Your task to perform on an android device: open app "Firefox Browser" (install if not already installed) Image 0: 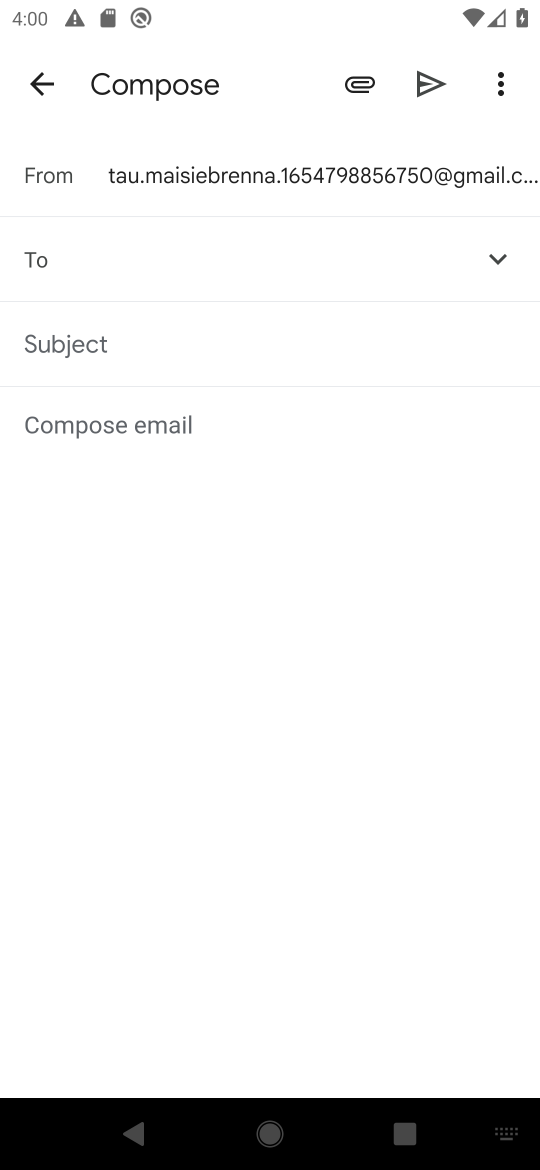
Step 0: press back button
Your task to perform on an android device: open app "Firefox Browser" (install if not already installed) Image 1: 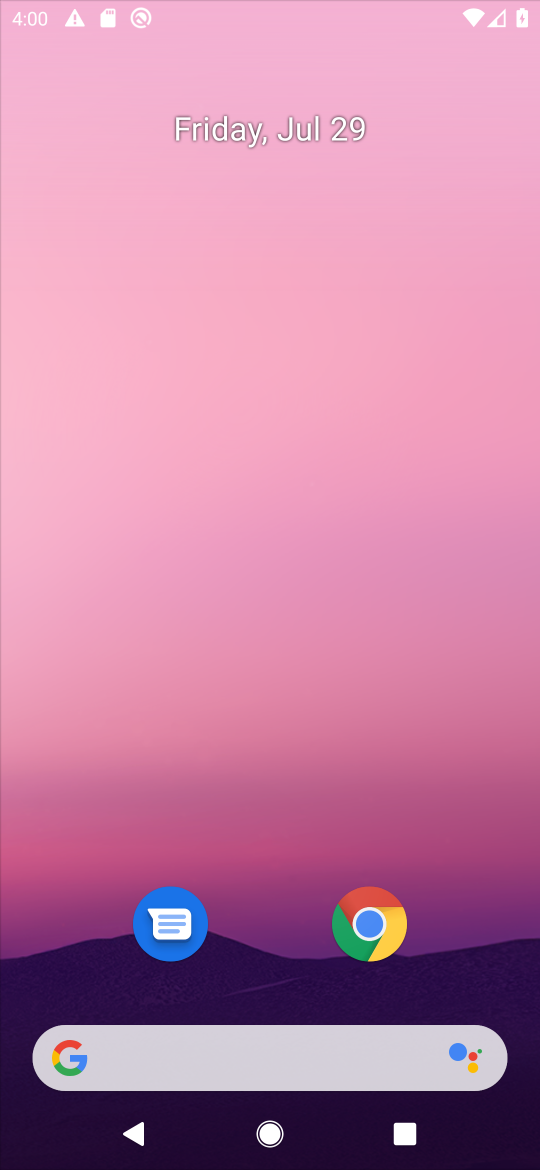
Step 1: press home button
Your task to perform on an android device: open app "Firefox Browser" (install if not already installed) Image 2: 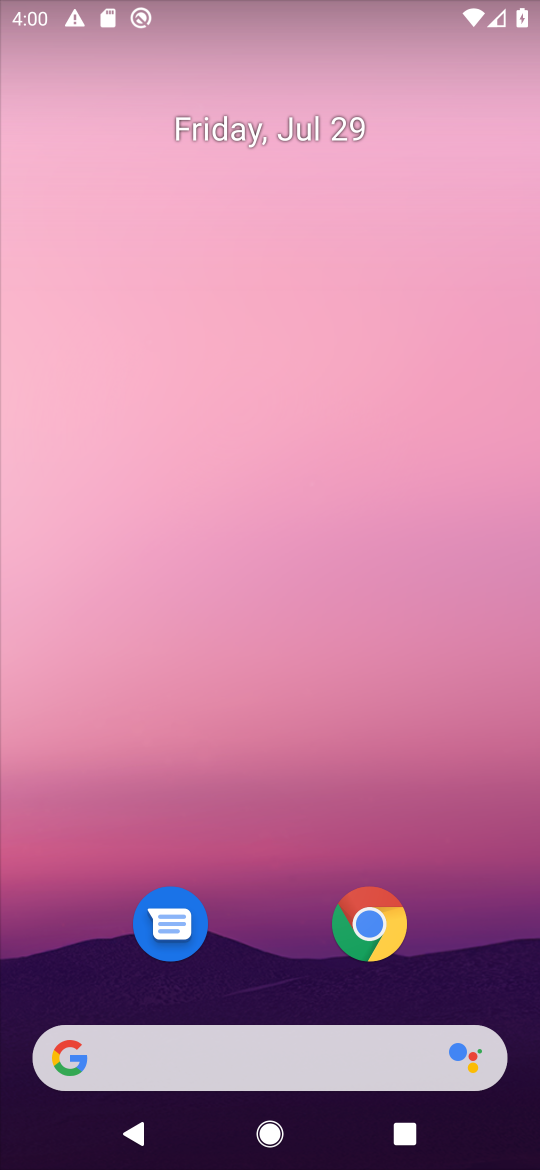
Step 2: click (357, 1127)
Your task to perform on an android device: open app "Firefox Browser" (install if not already installed) Image 3: 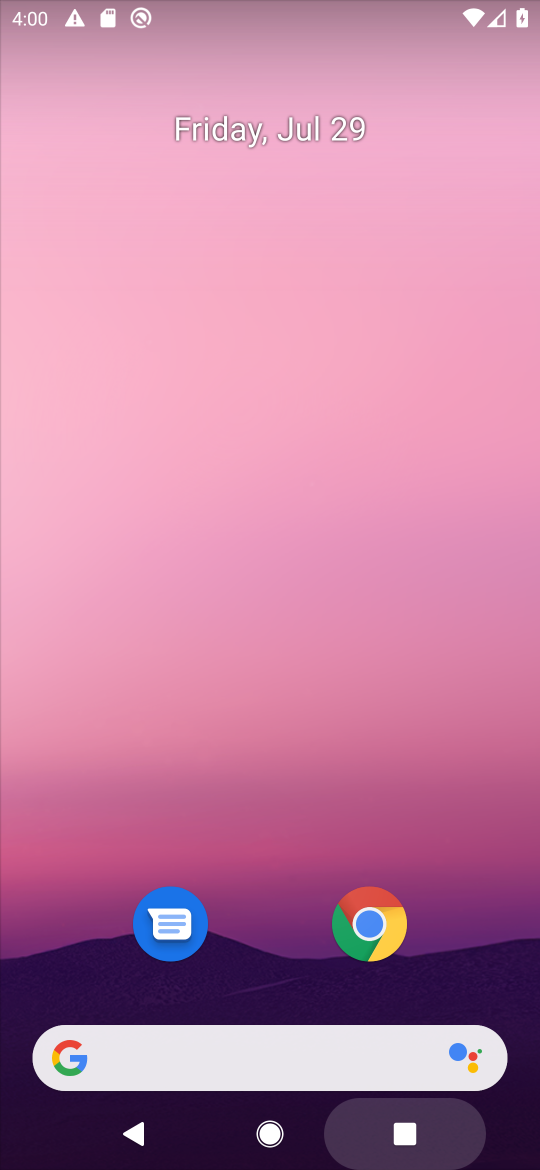
Step 3: drag from (343, 567) to (325, 71)
Your task to perform on an android device: open app "Firefox Browser" (install if not already installed) Image 4: 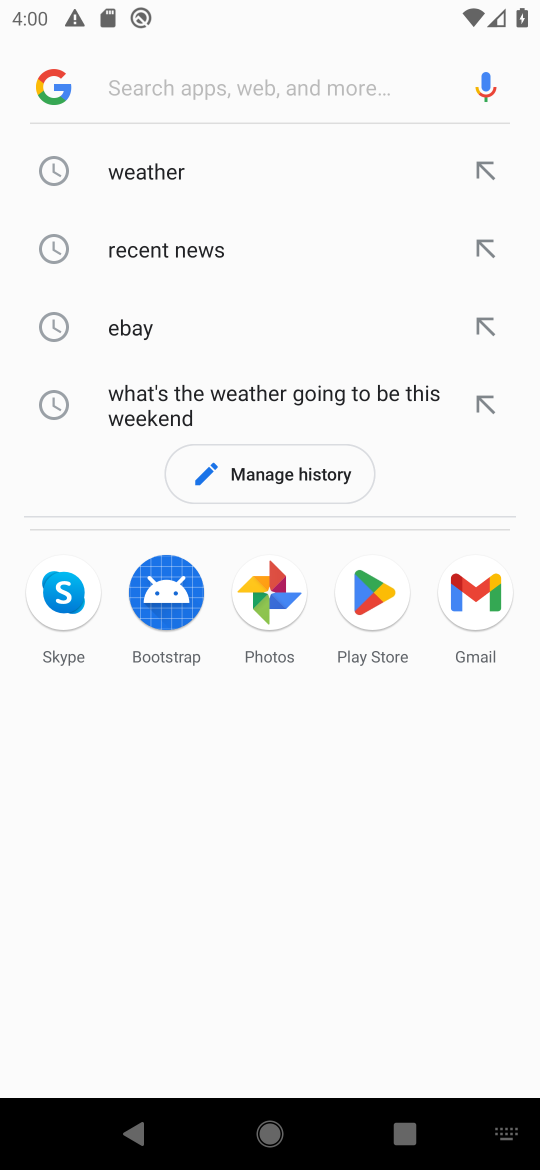
Step 4: press back button
Your task to perform on an android device: open app "Firefox Browser" (install if not already installed) Image 5: 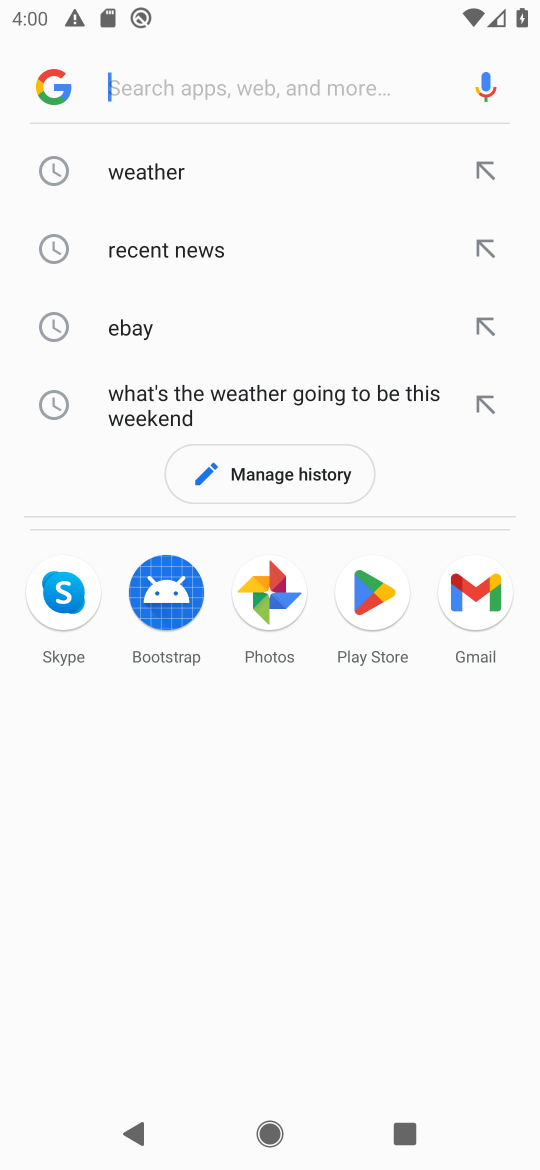
Step 5: press back button
Your task to perform on an android device: open app "Firefox Browser" (install if not already installed) Image 6: 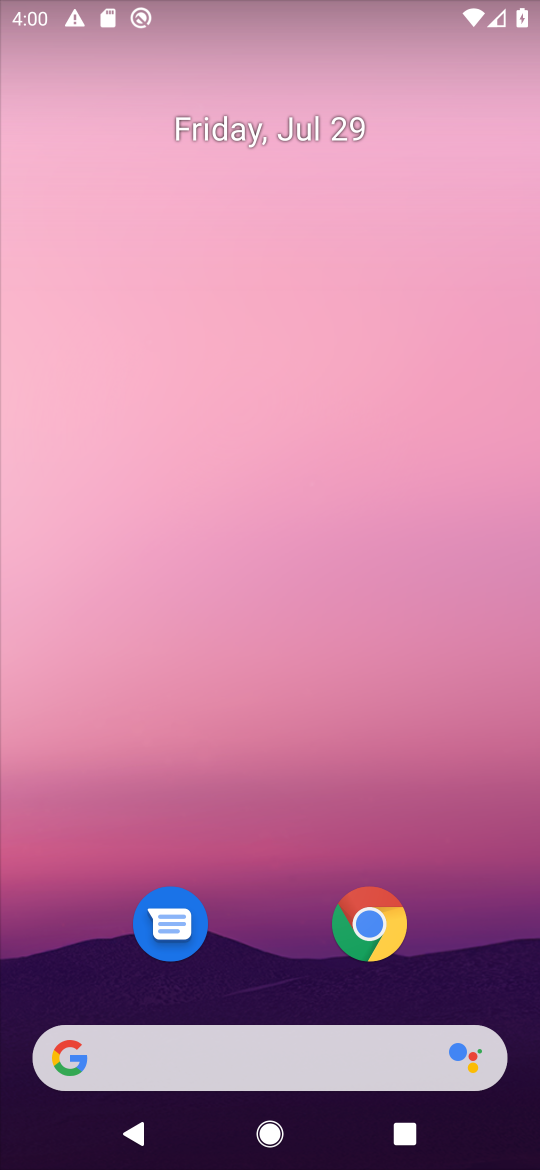
Step 6: drag from (262, 809) to (204, 193)
Your task to perform on an android device: open app "Firefox Browser" (install if not already installed) Image 7: 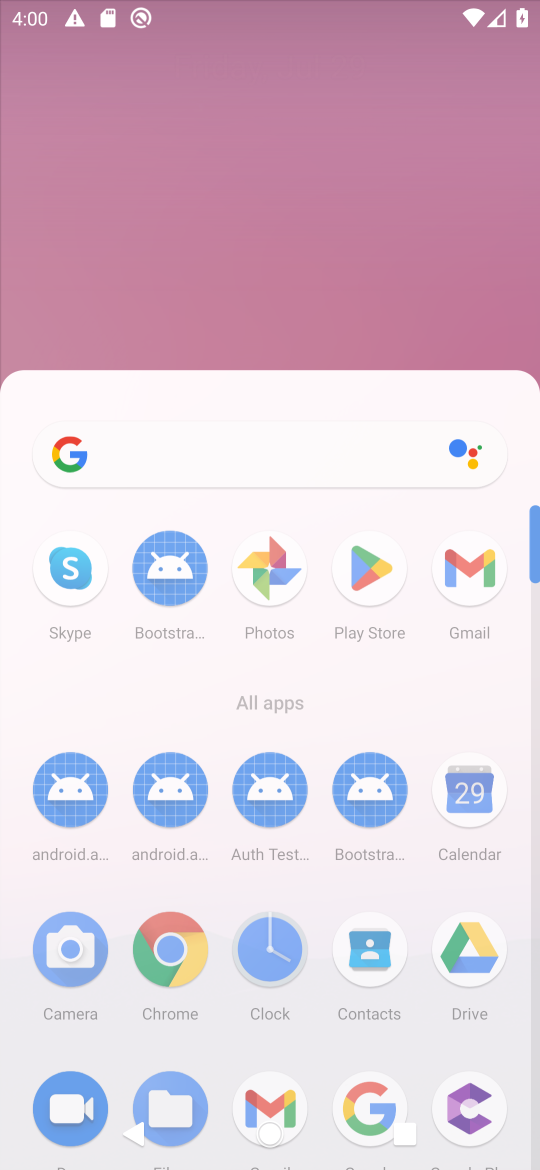
Step 7: drag from (279, 840) to (250, 82)
Your task to perform on an android device: open app "Firefox Browser" (install if not already installed) Image 8: 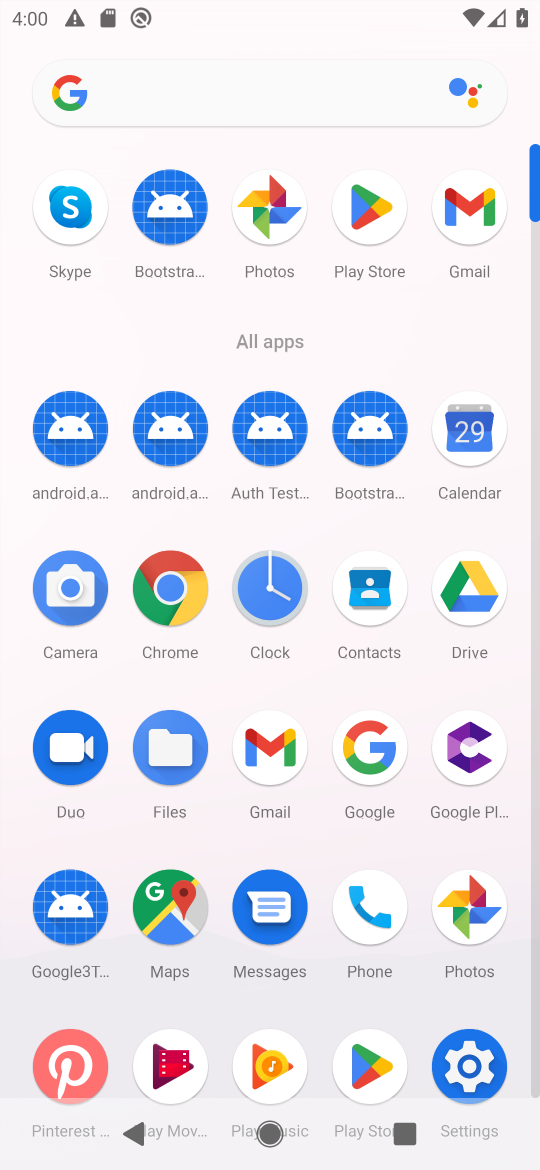
Step 8: drag from (319, 526) to (288, 179)
Your task to perform on an android device: open app "Firefox Browser" (install if not already installed) Image 9: 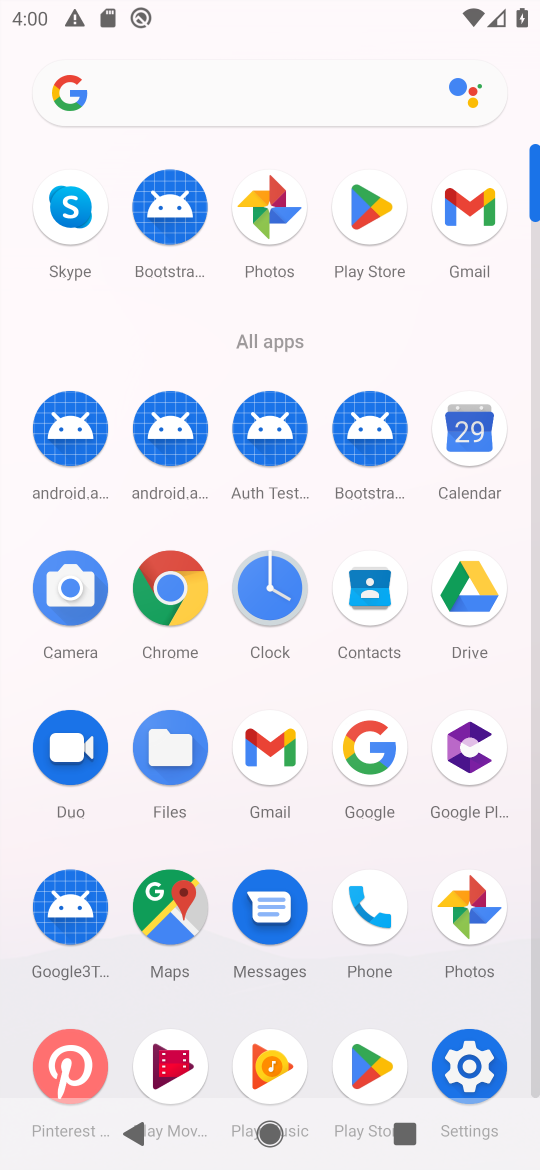
Step 9: click (365, 210)
Your task to perform on an android device: open app "Firefox Browser" (install if not already installed) Image 10: 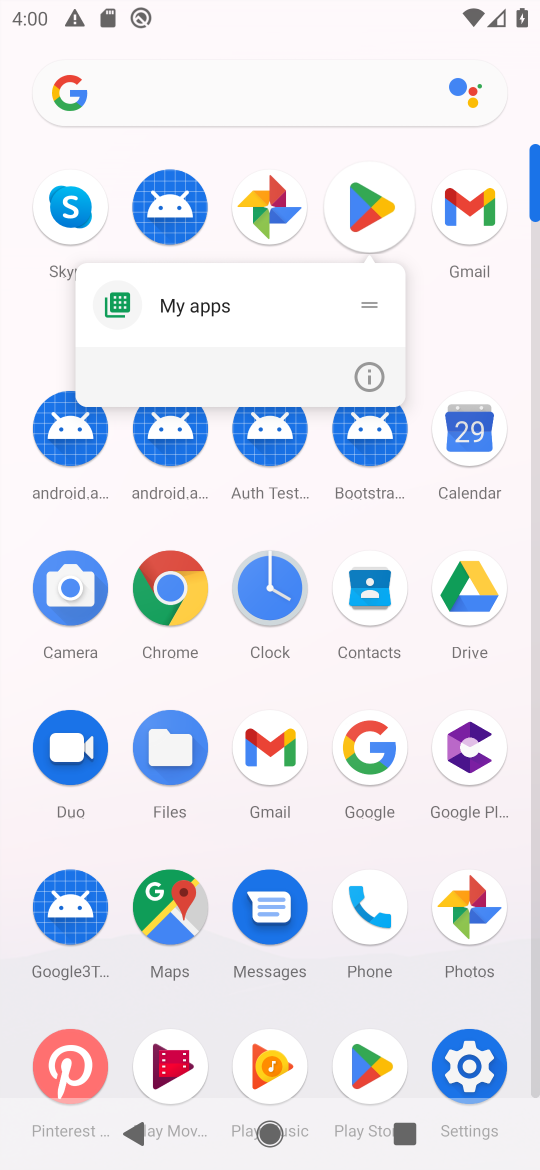
Step 10: click (356, 204)
Your task to perform on an android device: open app "Firefox Browser" (install if not already installed) Image 11: 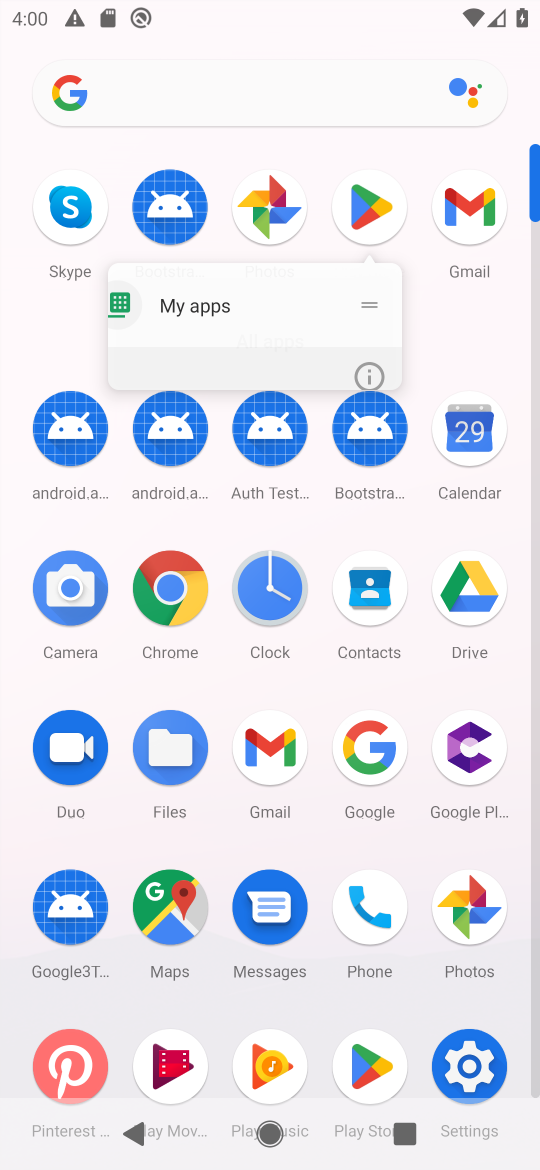
Step 11: click (357, 207)
Your task to perform on an android device: open app "Firefox Browser" (install if not already installed) Image 12: 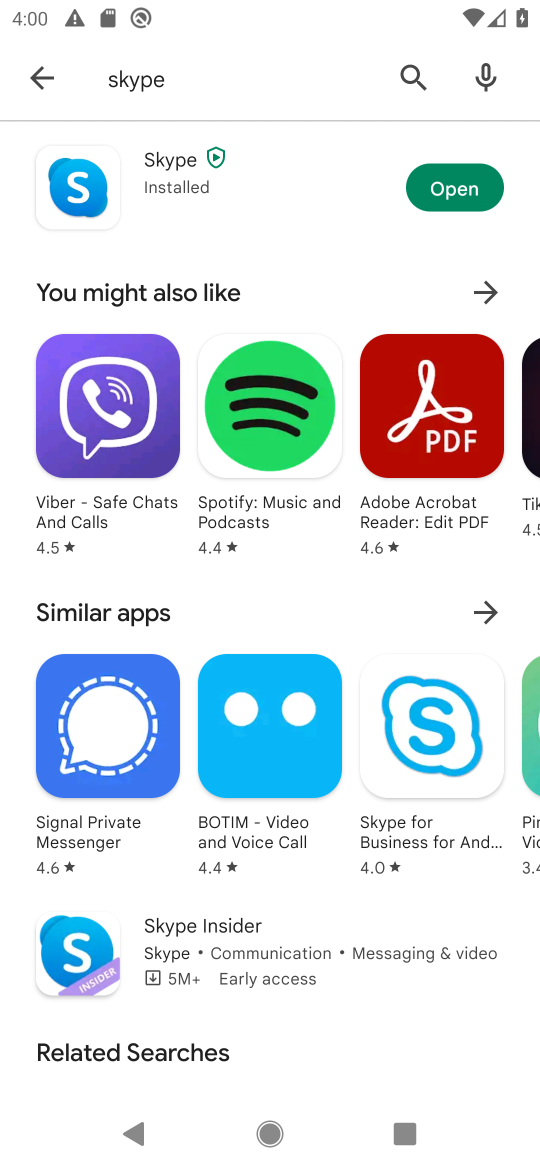
Step 12: click (120, 81)
Your task to perform on an android device: open app "Firefox Browser" (install if not already installed) Image 13: 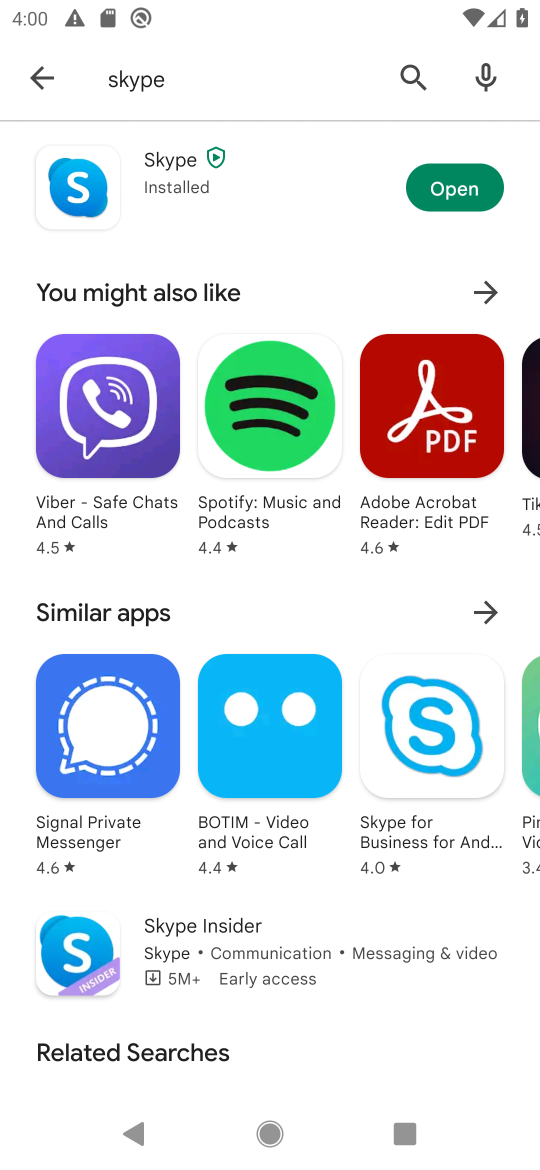
Step 13: click (118, 80)
Your task to perform on an android device: open app "Firefox Browser" (install if not already installed) Image 14: 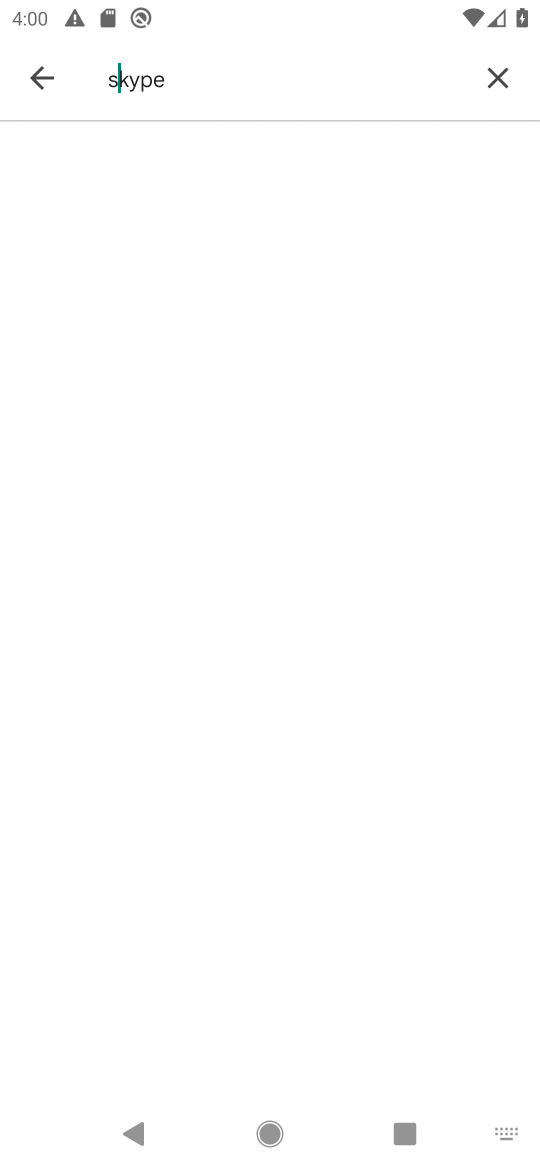
Step 14: click (38, 78)
Your task to perform on an android device: open app "Firefox Browser" (install if not already installed) Image 15: 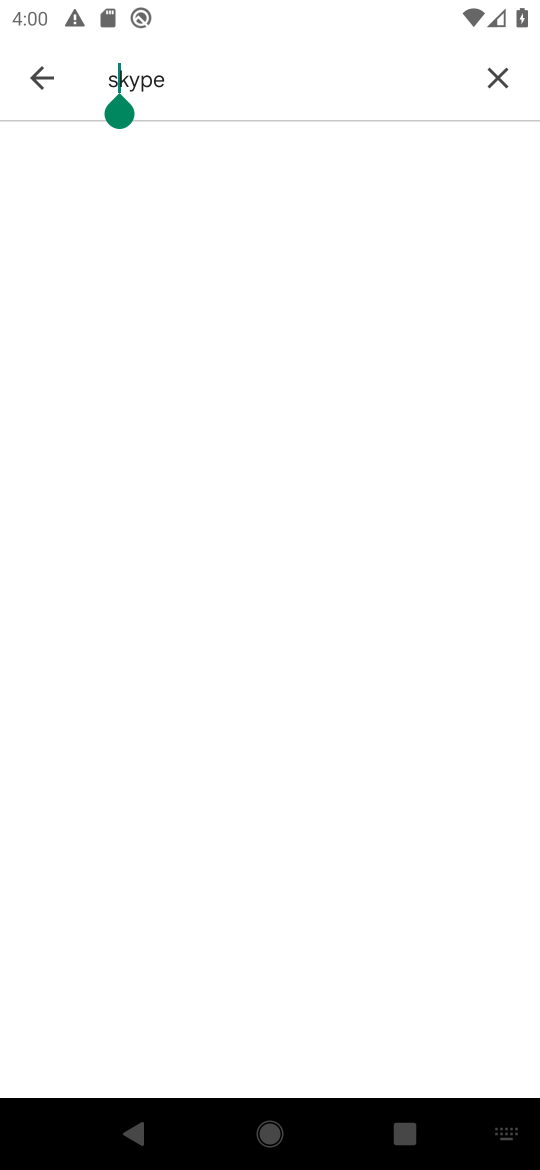
Step 15: click (40, 78)
Your task to perform on an android device: open app "Firefox Browser" (install if not already installed) Image 16: 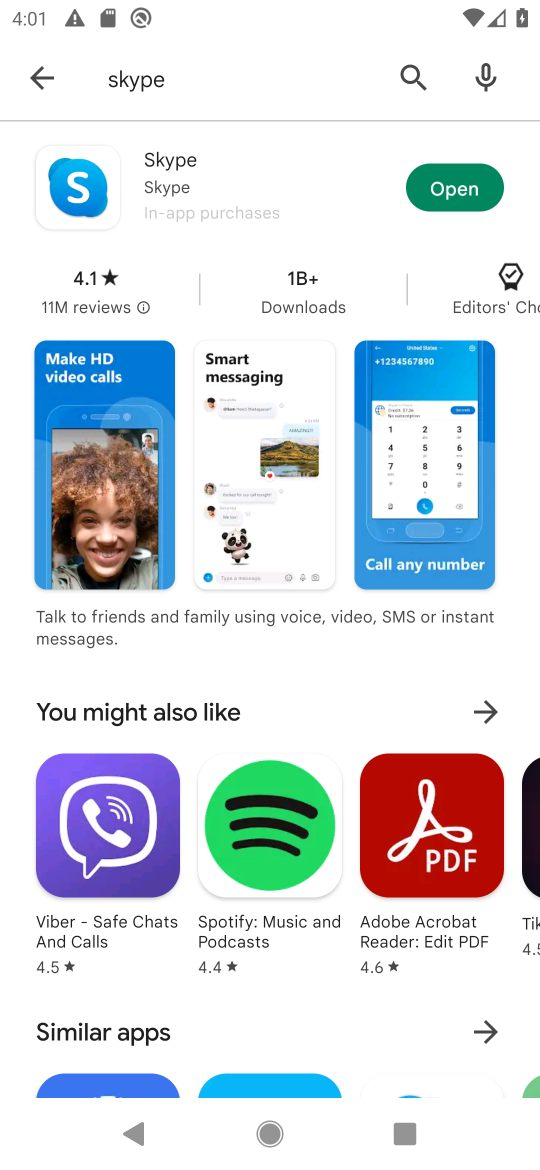
Step 16: click (487, 70)
Your task to perform on an android device: open app "Firefox Browser" (install if not already installed) Image 17: 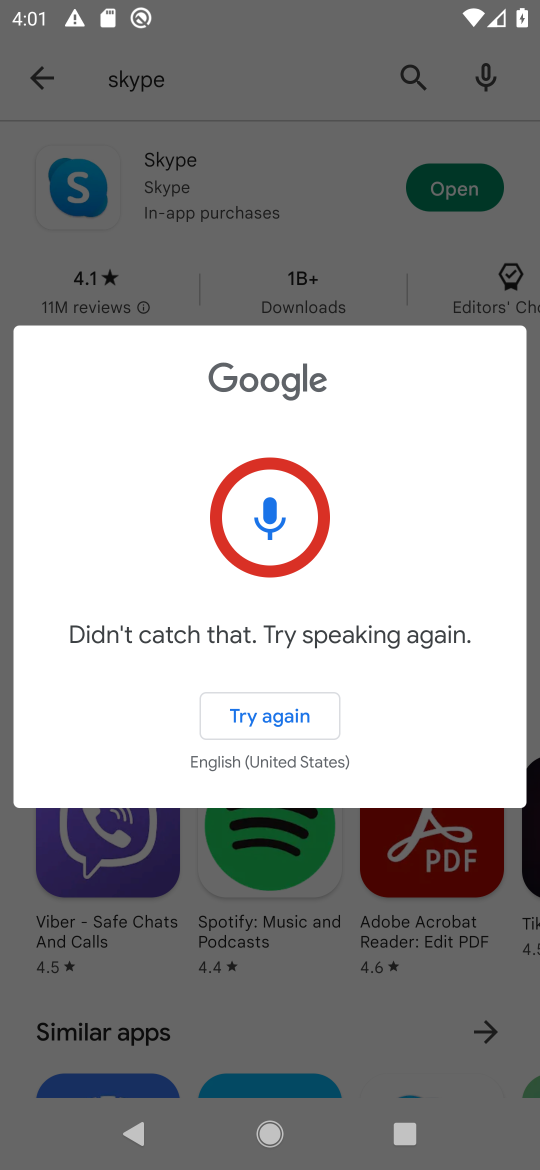
Step 17: click (292, 227)
Your task to perform on an android device: open app "Firefox Browser" (install if not already installed) Image 18: 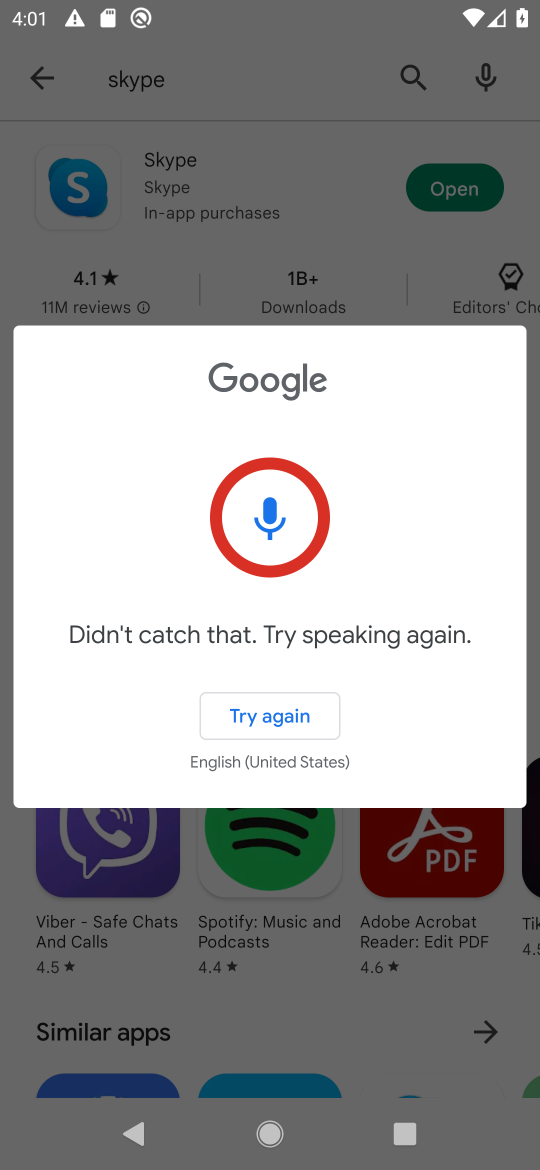
Step 18: click (292, 223)
Your task to perform on an android device: open app "Firefox Browser" (install if not already installed) Image 19: 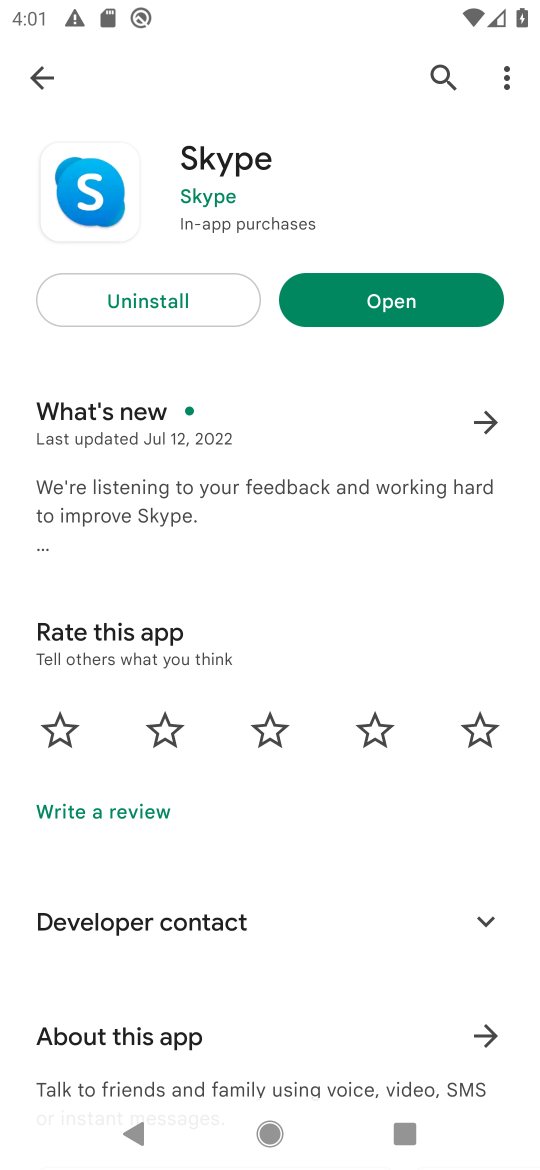
Step 19: click (62, 75)
Your task to perform on an android device: open app "Firefox Browser" (install if not already installed) Image 20: 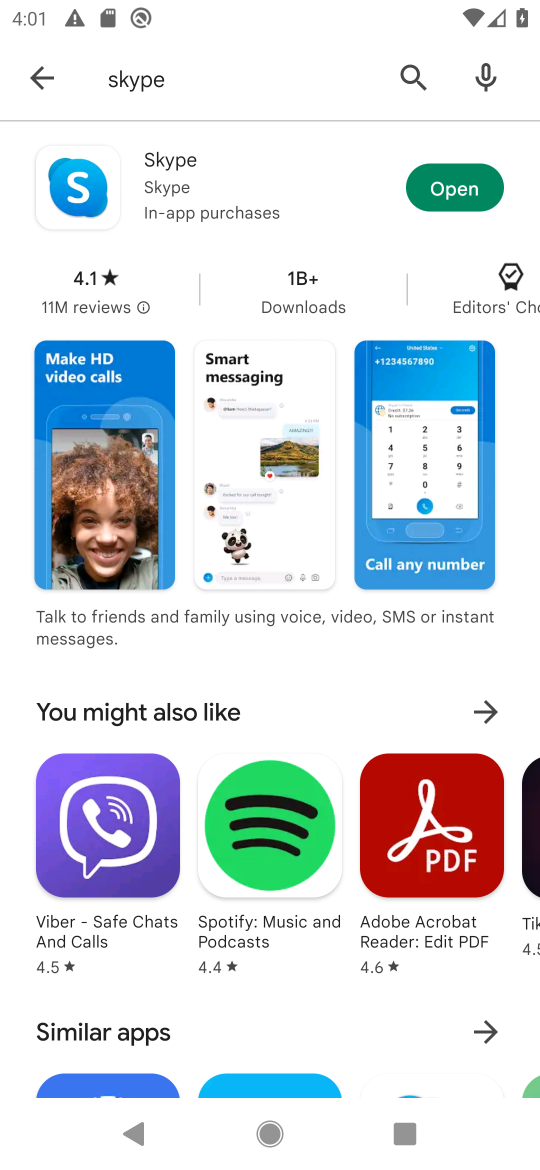
Step 20: click (42, 72)
Your task to perform on an android device: open app "Firefox Browser" (install if not already installed) Image 21: 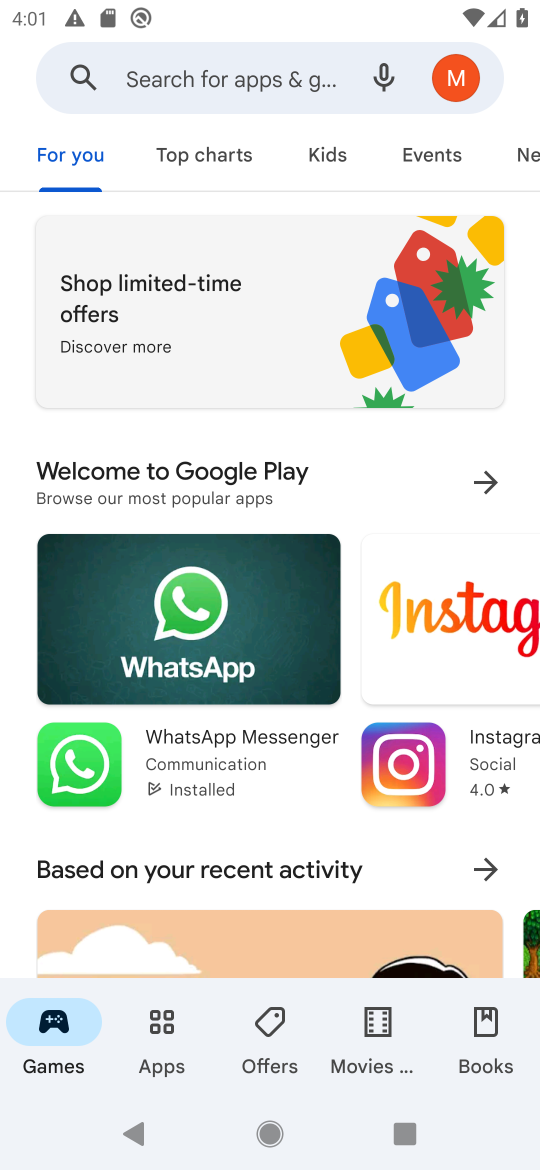
Step 21: click (132, 54)
Your task to perform on an android device: open app "Firefox Browser" (install if not already installed) Image 22: 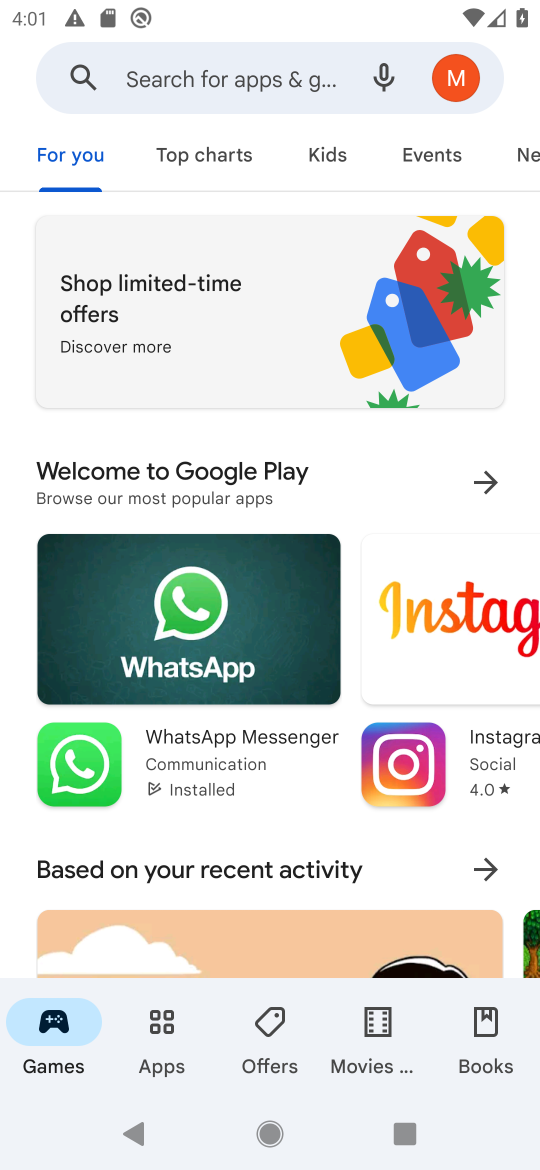
Step 22: click (151, 65)
Your task to perform on an android device: open app "Firefox Browser" (install if not already installed) Image 23: 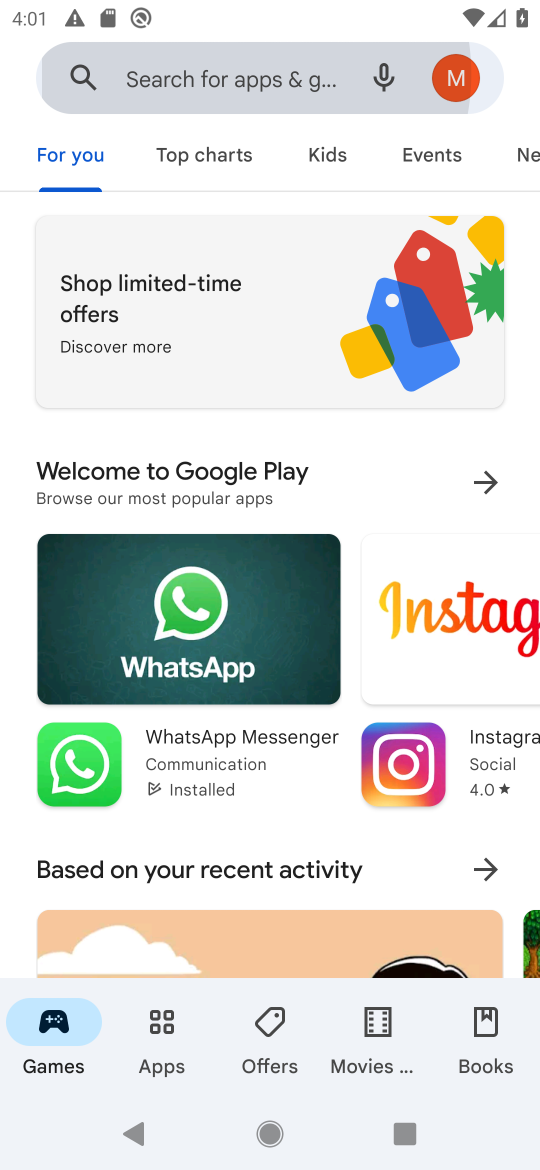
Step 23: click (155, 68)
Your task to perform on an android device: open app "Firefox Browser" (install if not already installed) Image 24: 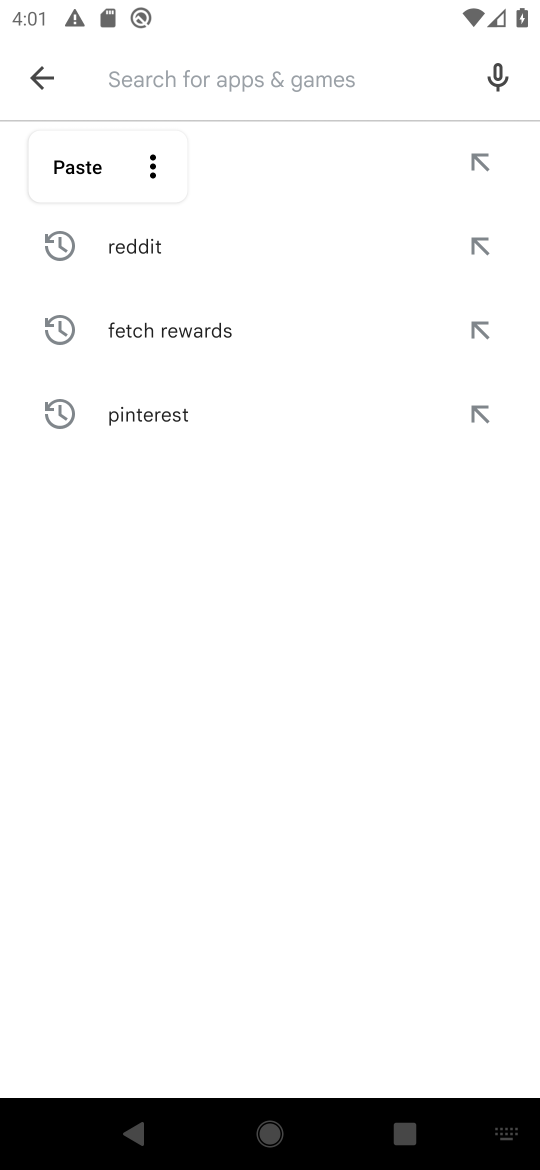
Step 24: type "firefox browser"
Your task to perform on an android device: open app "Firefox Browser" (install if not already installed) Image 25: 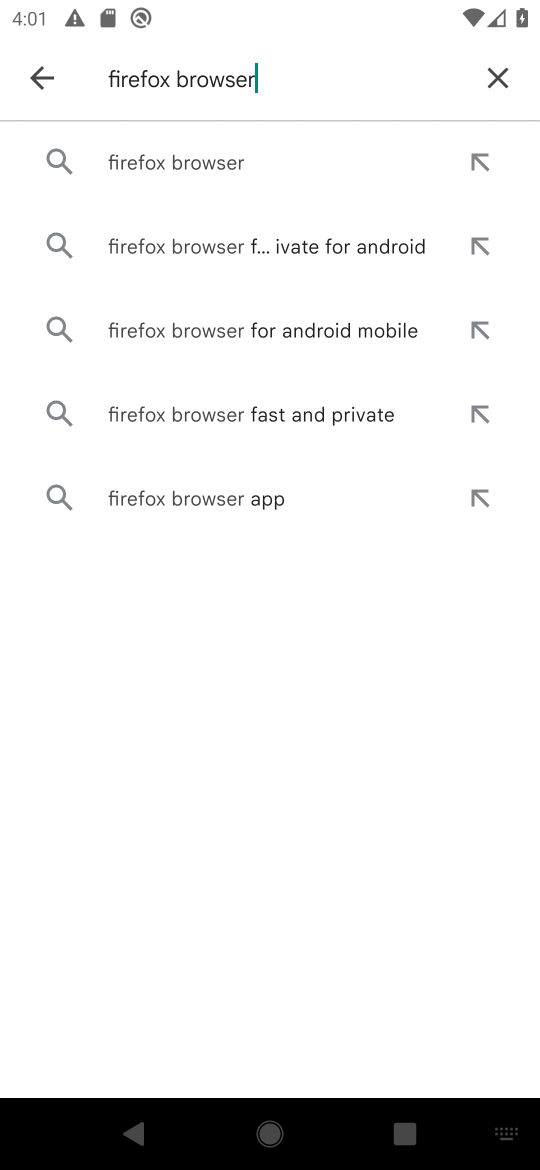
Step 25: click (180, 159)
Your task to perform on an android device: open app "Firefox Browser" (install if not already installed) Image 26: 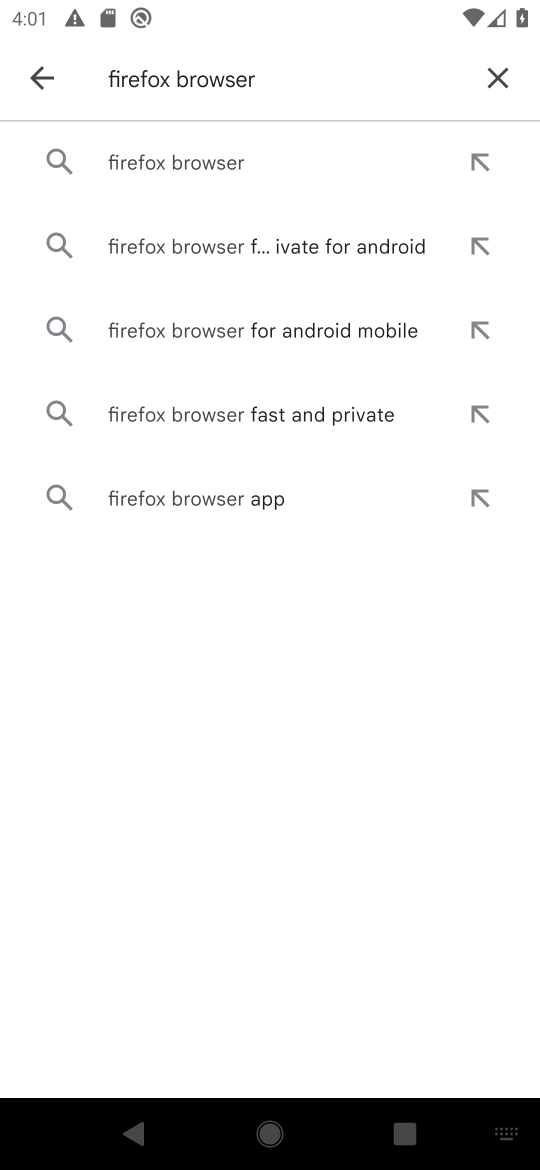
Step 26: click (180, 159)
Your task to perform on an android device: open app "Firefox Browser" (install if not already installed) Image 27: 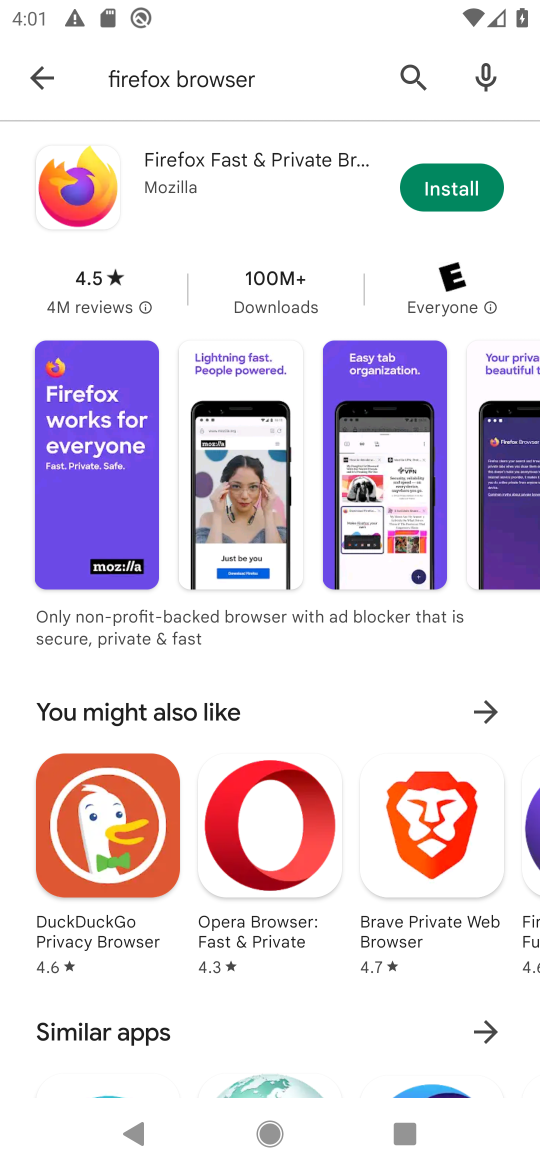
Step 27: click (437, 184)
Your task to perform on an android device: open app "Firefox Browser" (install if not already installed) Image 28: 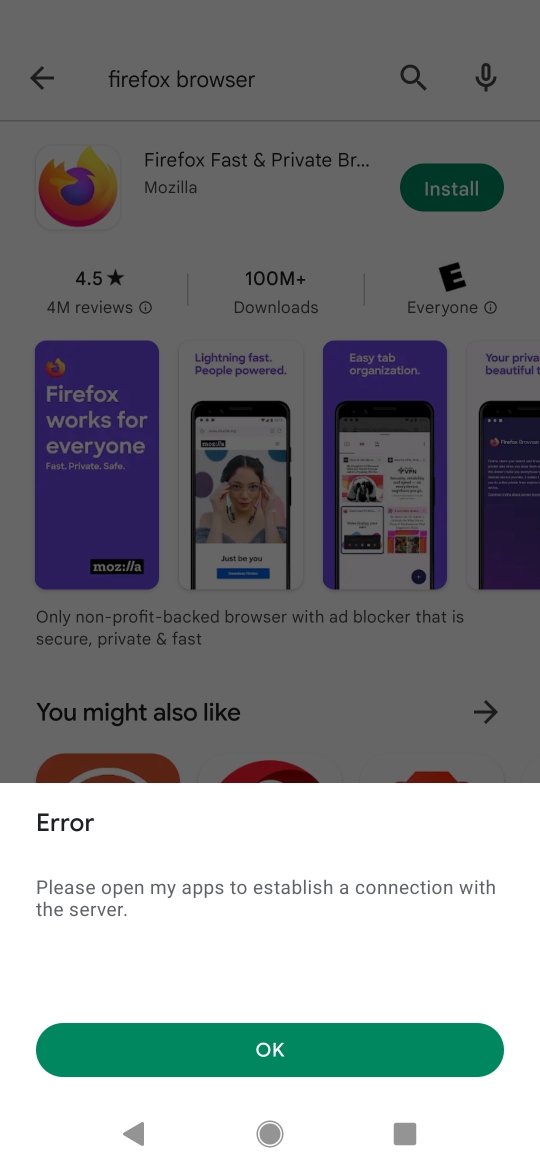
Step 28: click (305, 1044)
Your task to perform on an android device: open app "Firefox Browser" (install if not already installed) Image 29: 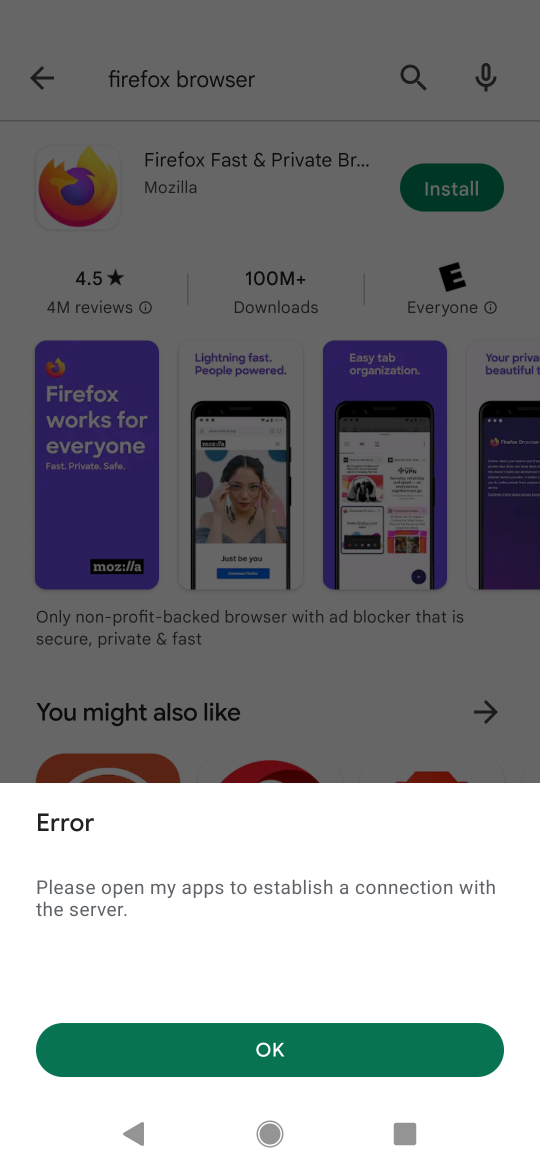
Step 29: click (313, 1054)
Your task to perform on an android device: open app "Firefox Browser" (install if not already installed) Image 30: 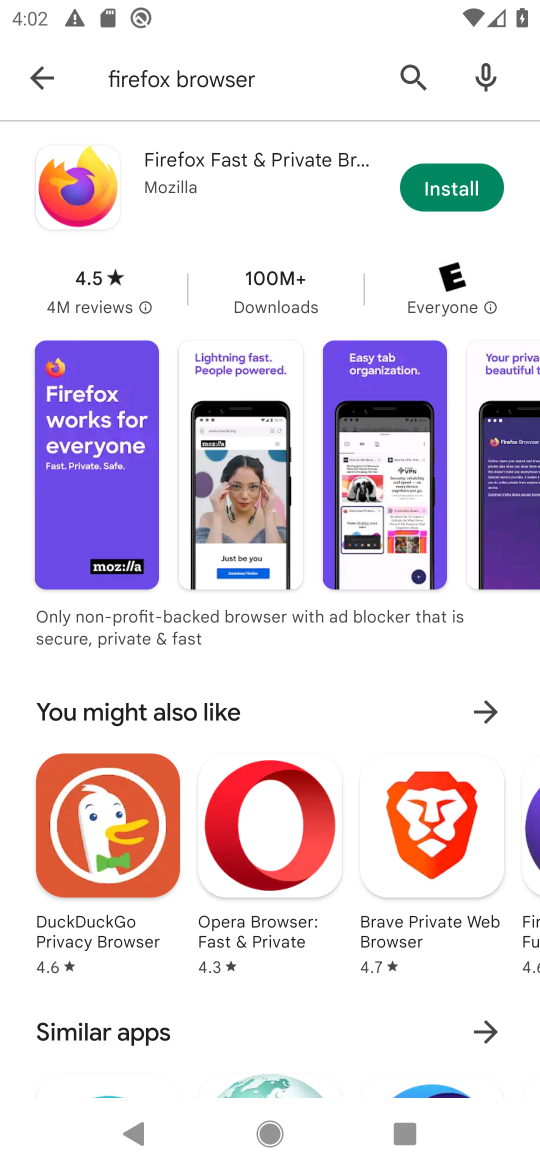
Step 30: click (461, 177)
Your task to perform on an android device: open app "Firefox Browser" (install if not already installed) Image 31: 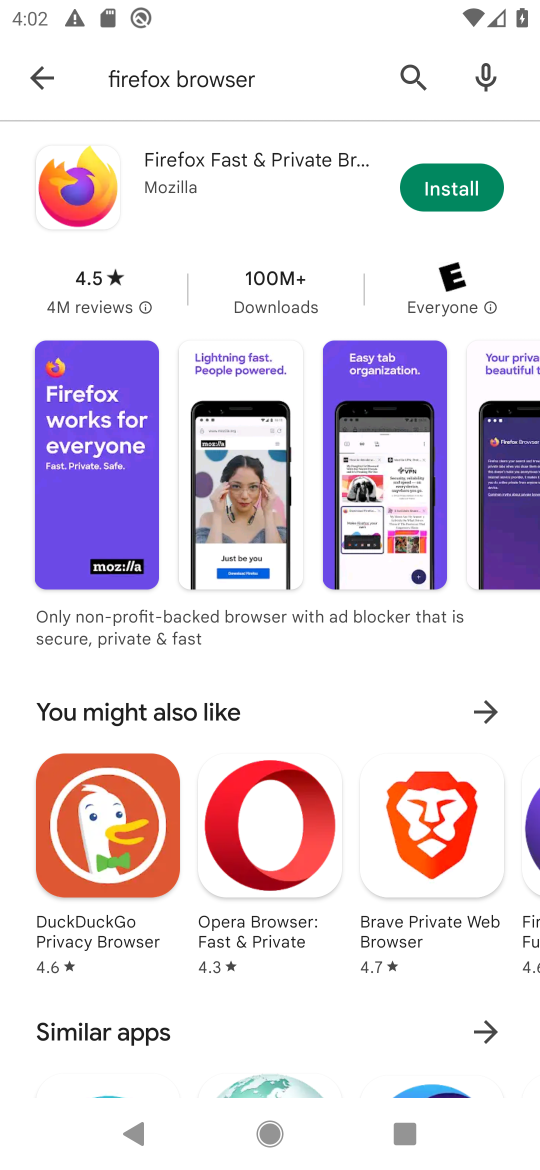
Step 31: click (461, 179)
Your task to perform on an android device: open app "Firefox Browser" (install if not already installed) Image 32: 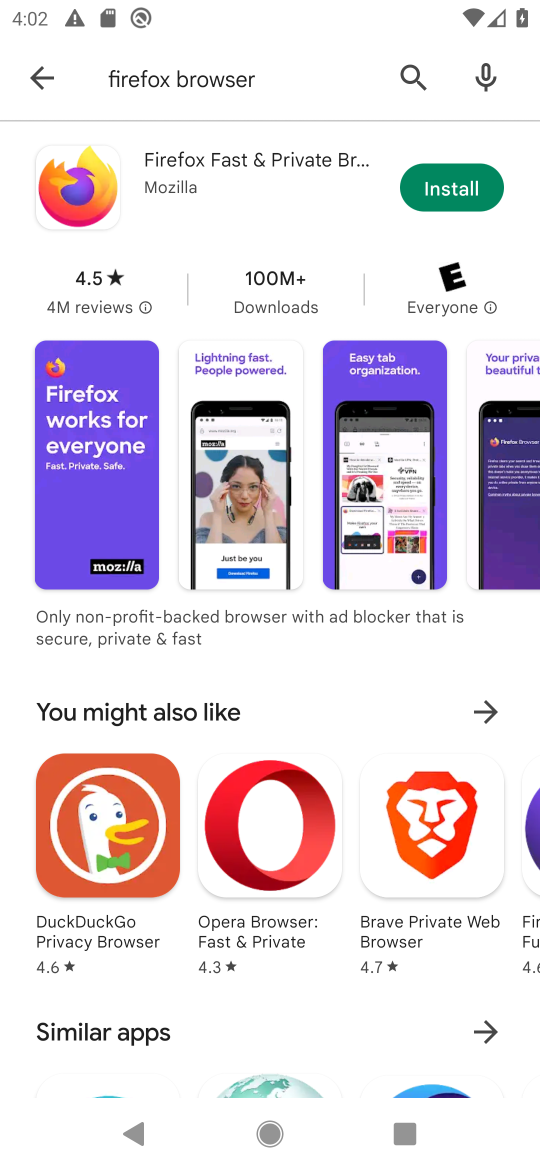
Step 32: click (463, 191)
Your task to perform on an android device: open app "Firefox Browser" (install if not already installed) Image 33: 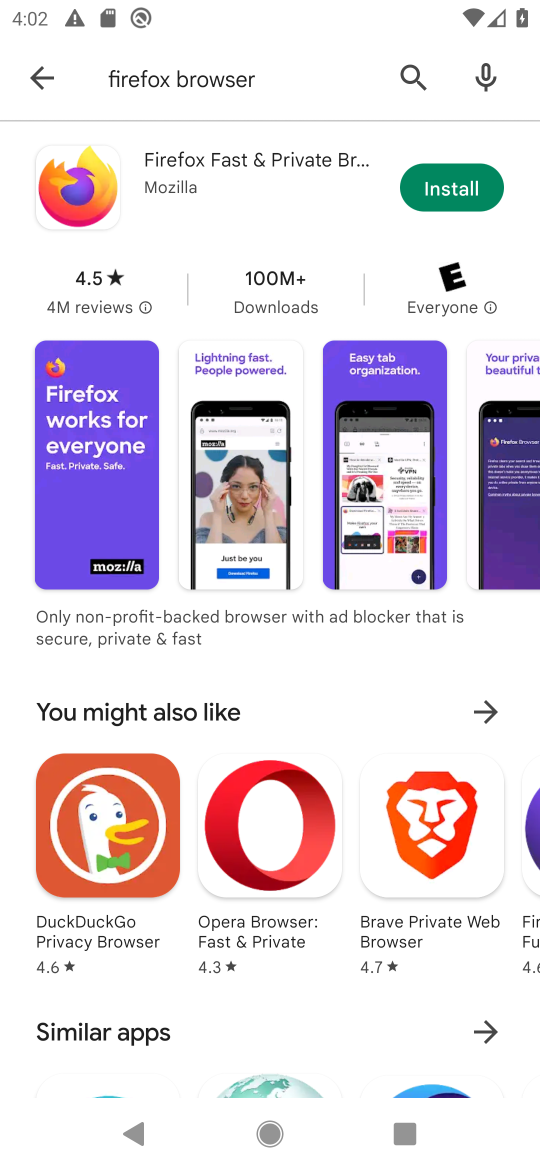
Step 33: click (466, 199)
Your task to perform on an android device: open app "Firefox Browser" (install if not already installed) Image 34: 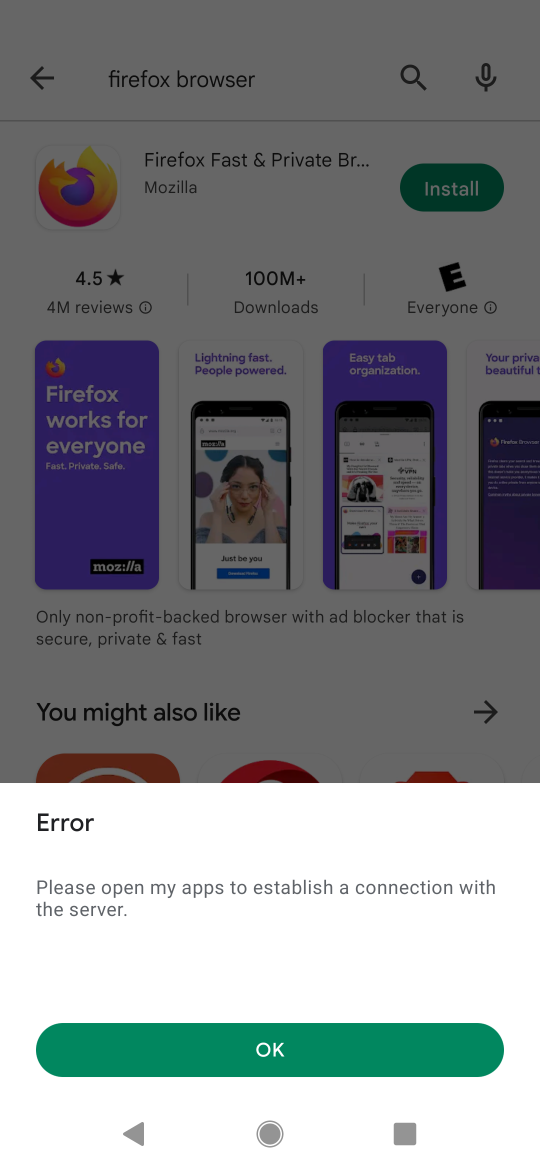
Step 34: click (273, 1033)
Your task to perform on an android device: open app "Firefox Browser" (install if not already installed) Image 35: 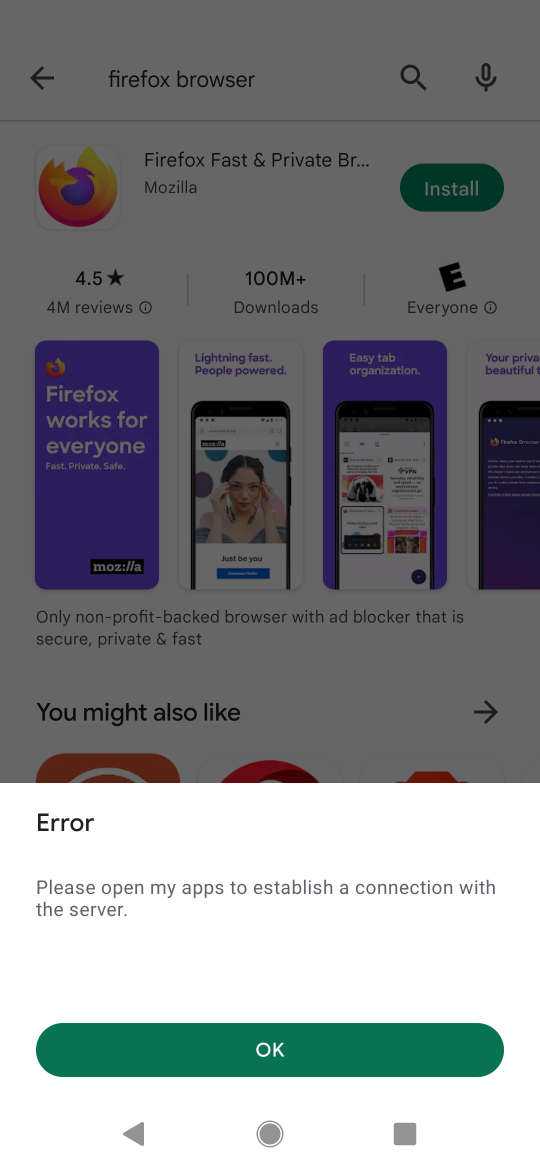
Step 35: click (276, 1031)
Your task to perform on an android device: open app "Firefox Browser" (install if not already installed) Image 36: 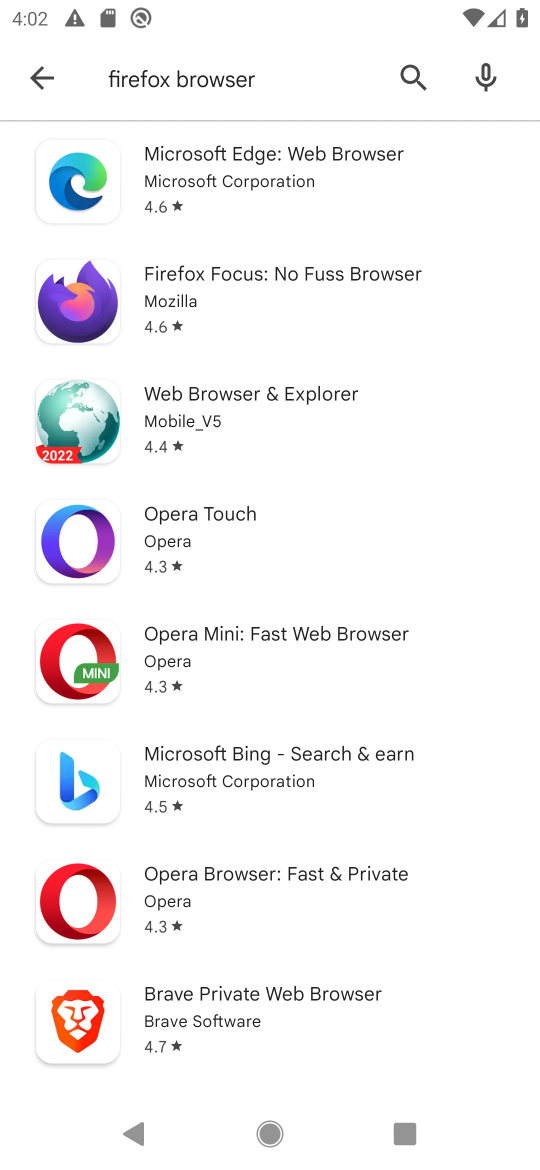
Step 36: task complete